Your task to perform on an android device: Find coffee shops on Maps Image 0: 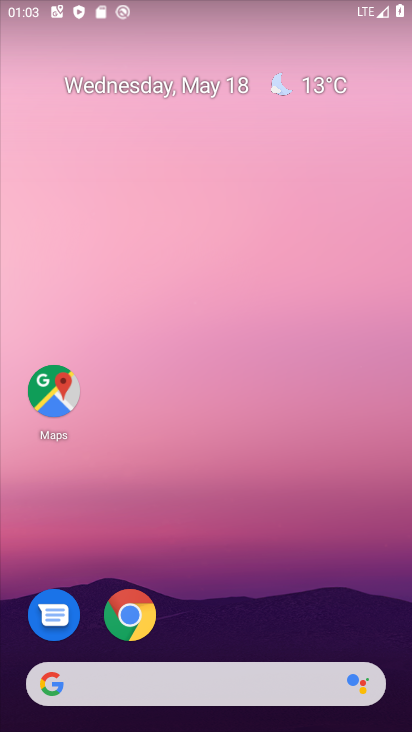
Step 0: press home button
Your task to perform on an android device: Find coffee shops on Maps Image 1: 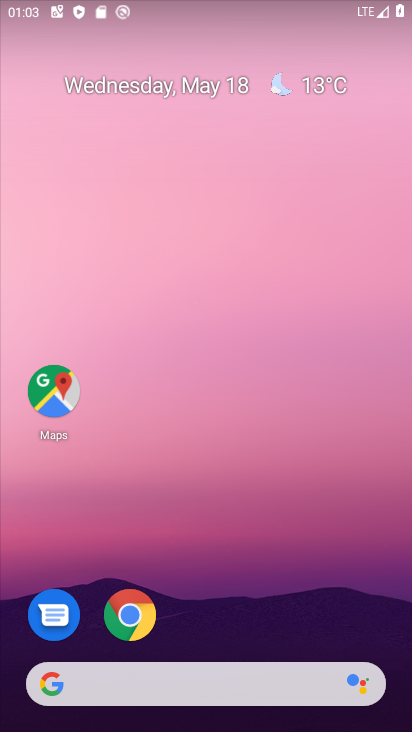
Step 1: click (53, 397)
Your task to perform on an android device: Find coffee shops on Maps Image 2: 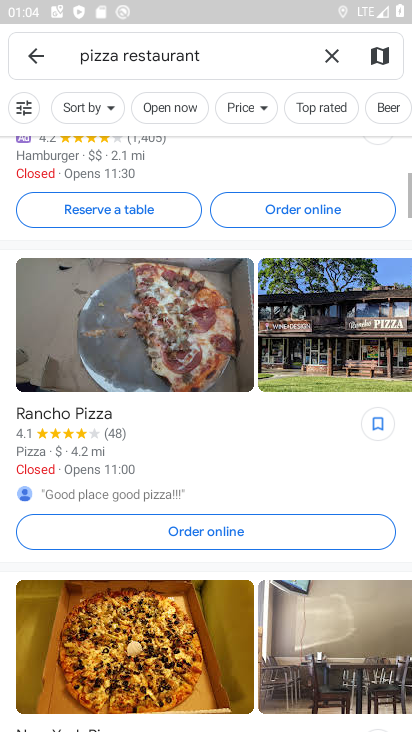
Step 2: click (334, 56)
Your task to perform on an android device: Find coffee shops on Maps Image 3: 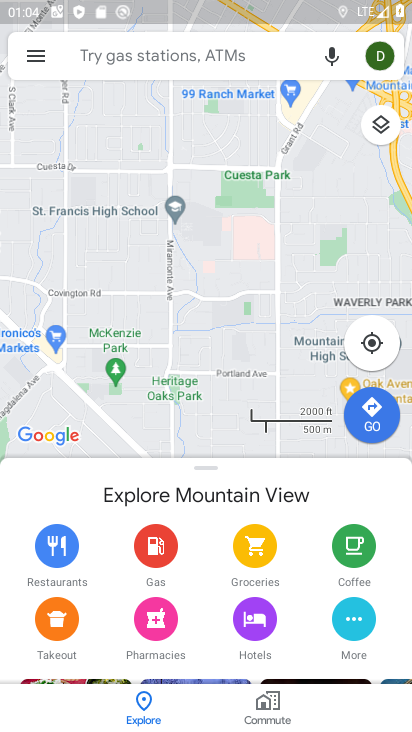
Step 3: click (232, 54)
Your task to perform on an android device: Find coffee shops on Maps Image 4: 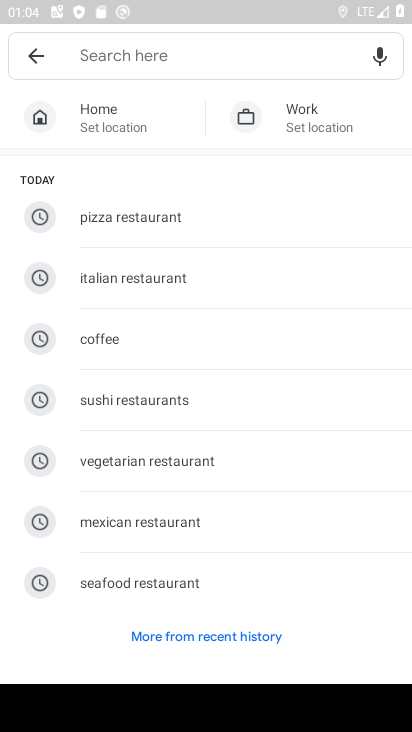
Step 4: click (105, 343)
Your task to perform on an android device: Find coffee shops on Maps Image 5: 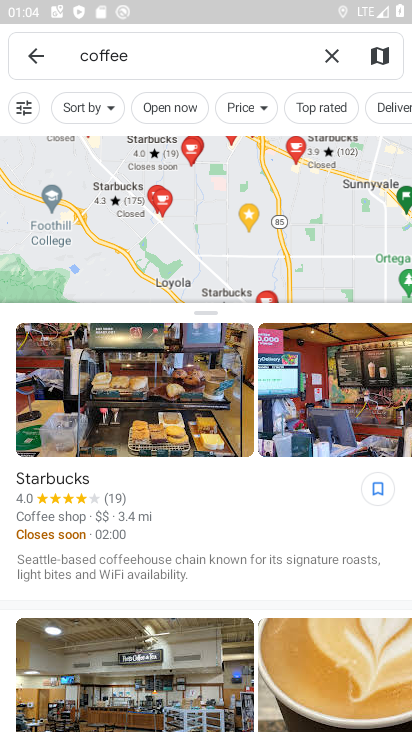
Step 5: task complete